Your task to perform on an android device: Open notification settings Image 0: 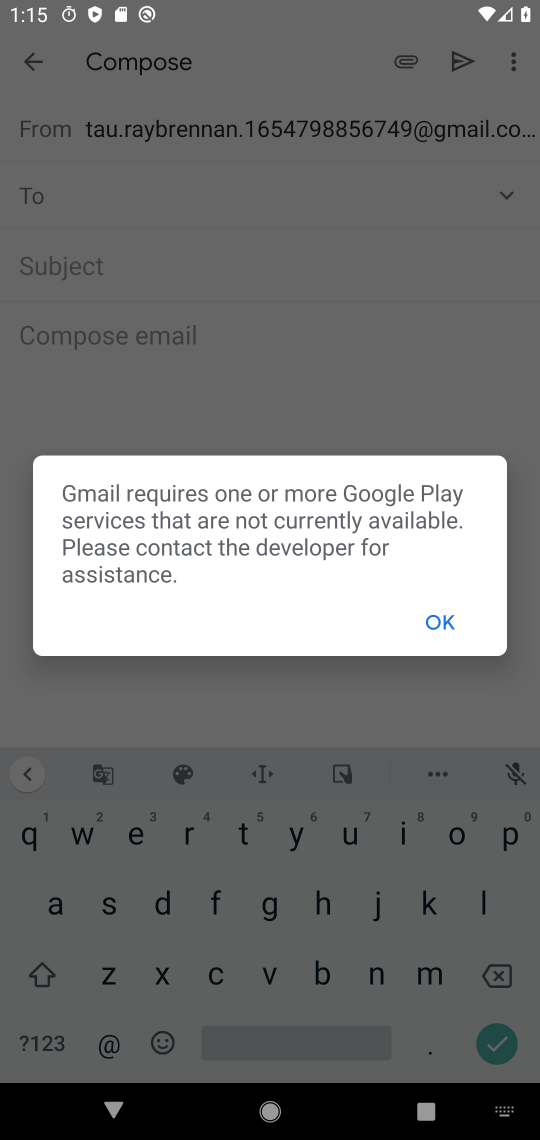
Step 0: press home button
Your task to perform on an android device: Open notification settings Image 1: 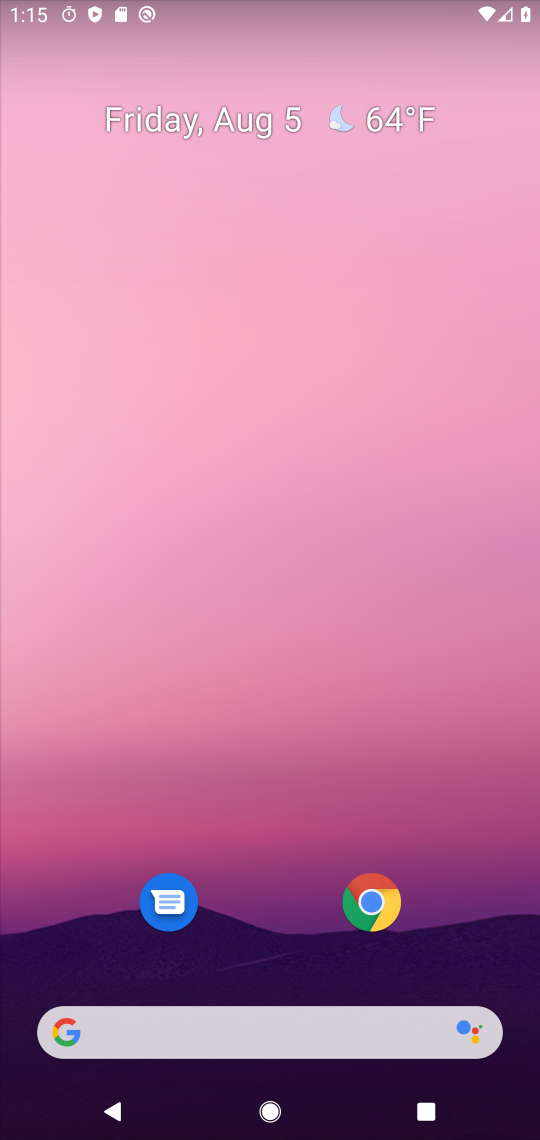
Step 1: drag from (324, 981) to (423, 278)
Your task to perform on an android device: Open notification settings Image 2: 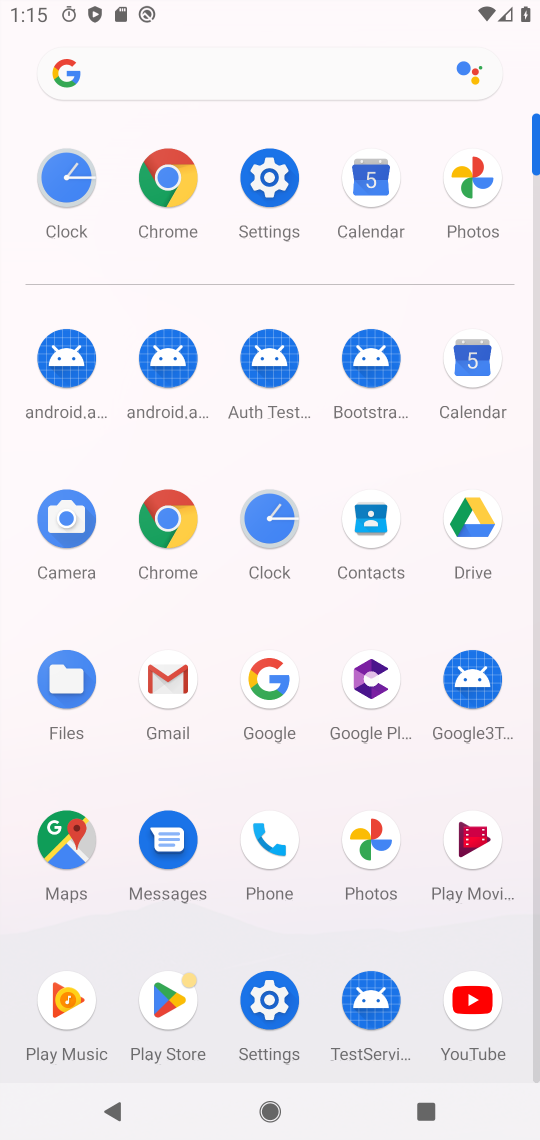
Step 2: click (258, 166)
Your task to perform on an android device: Open notification settings Image 3: 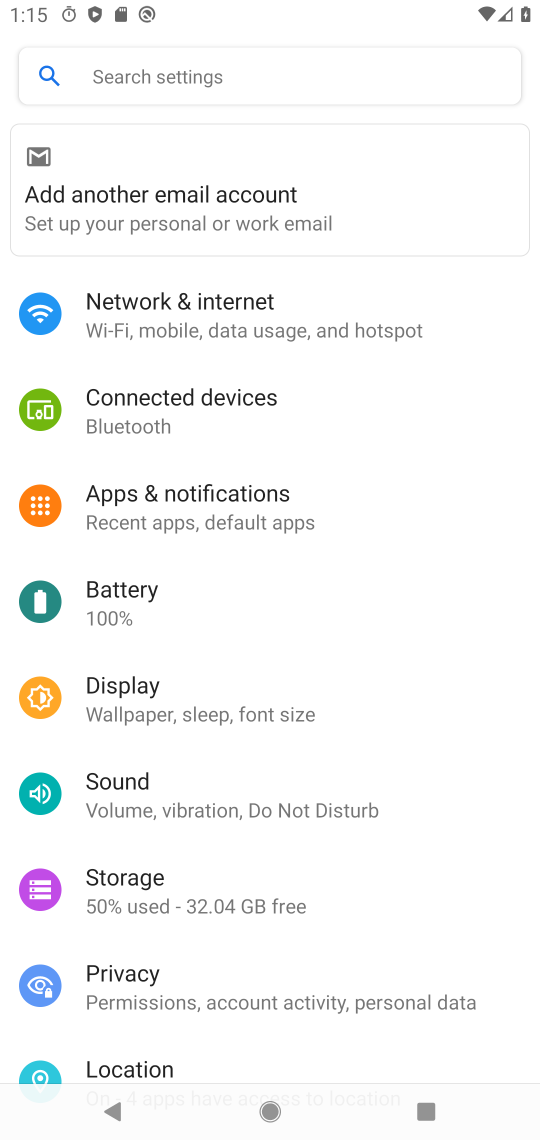
Step 3: click (132, 80)
Your task to perform on an android device: Open notification settings Image 4: 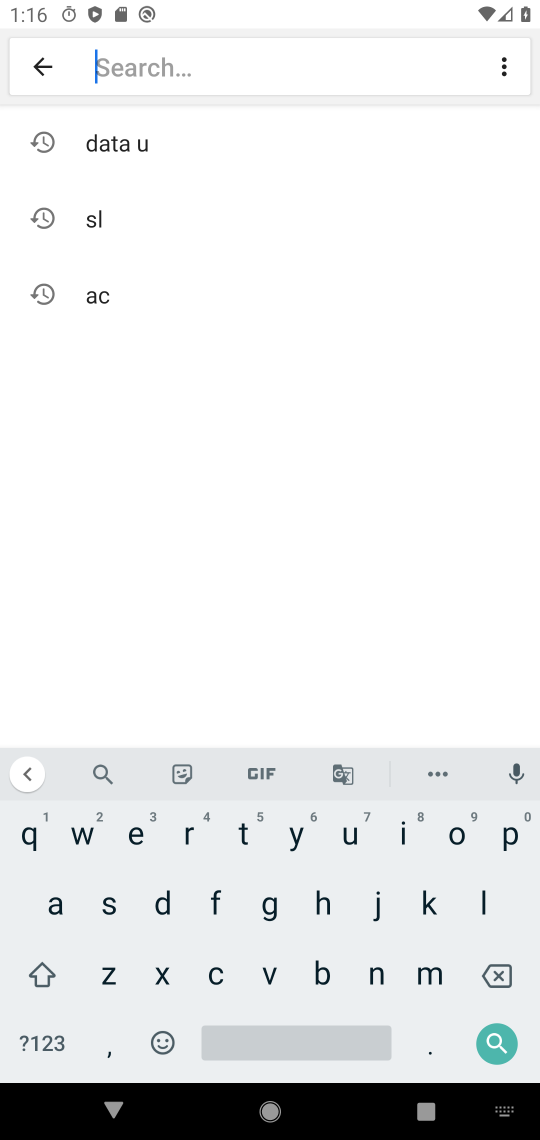
Step 4: click (377, 978)
Your task to perform on an android device: Open notification settings Image 5: 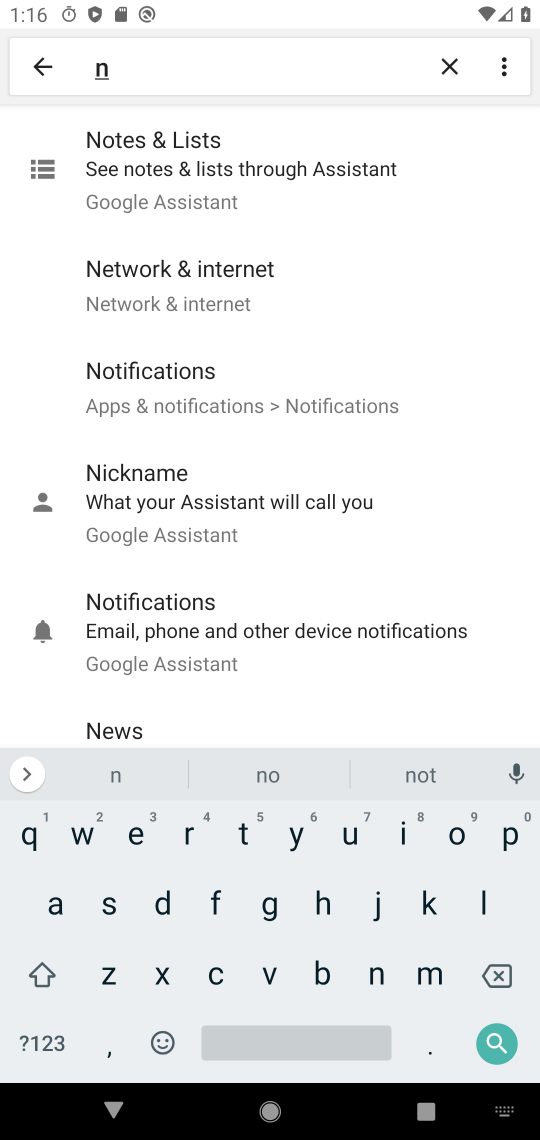
Step 5: click (456, 852)
Your task to perform on an android device: Open notification settings Image 6: 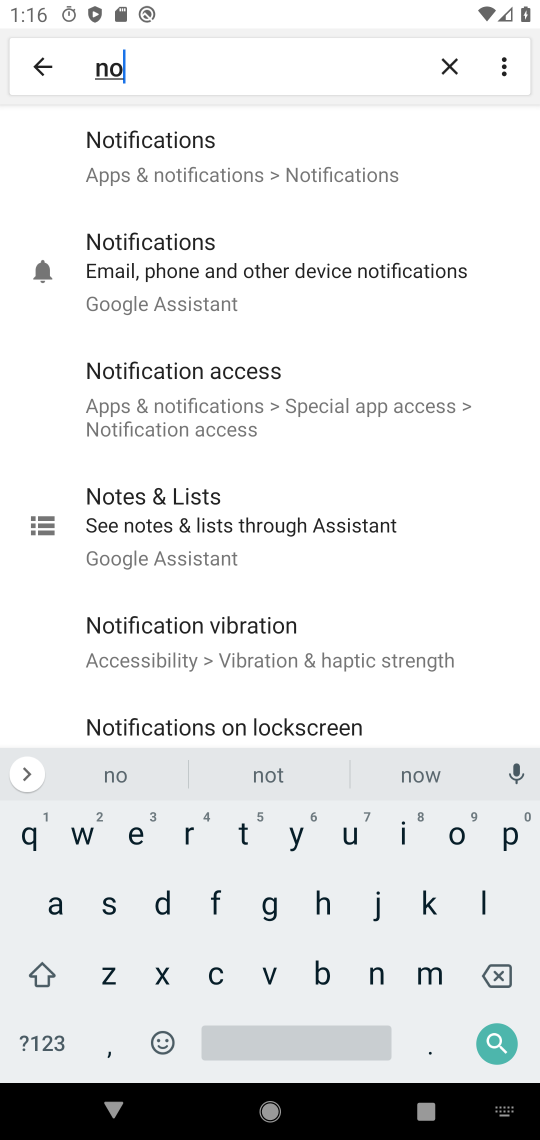
Step 6: click (218, 165)
Your task to perform on an android device: Open notification settings Image 7: 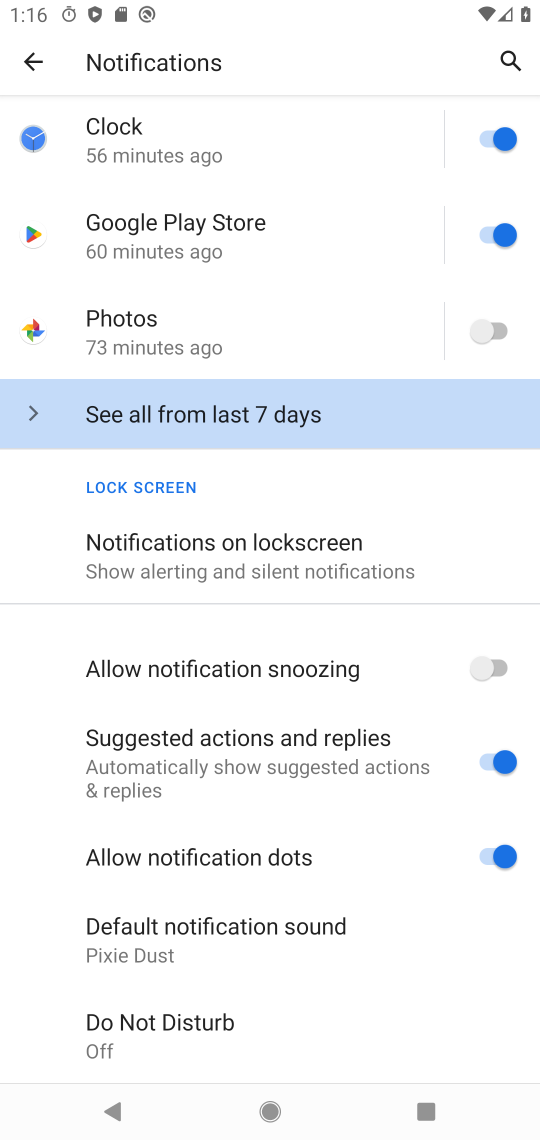
Step 7: click (193, 547)
Your task to perform on an android device: Open notification settings Image 8: 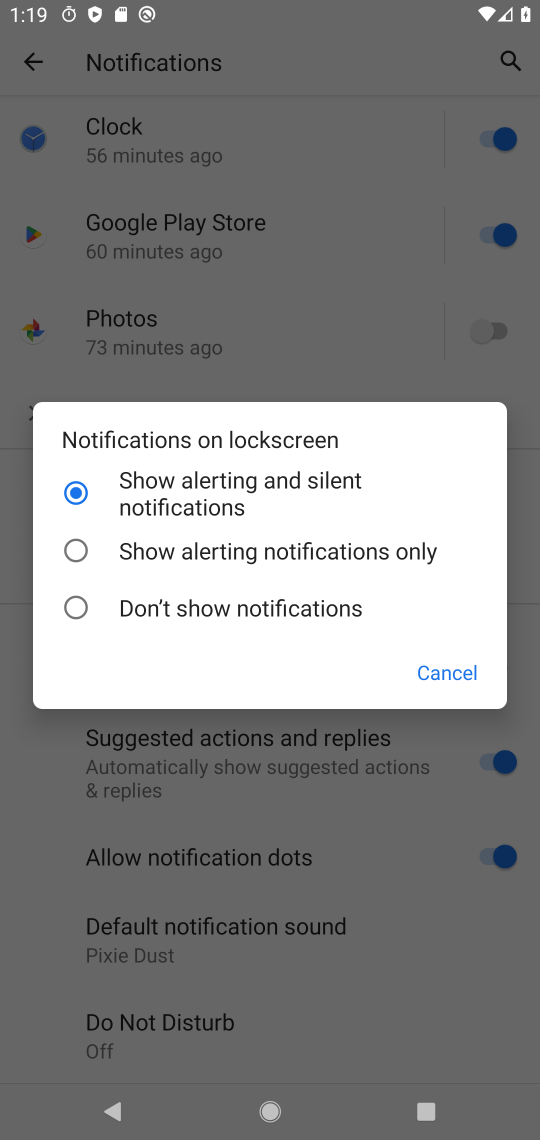
Step 8: task complete